Your task to perform on an android device: change the clock display to analog Image 0: 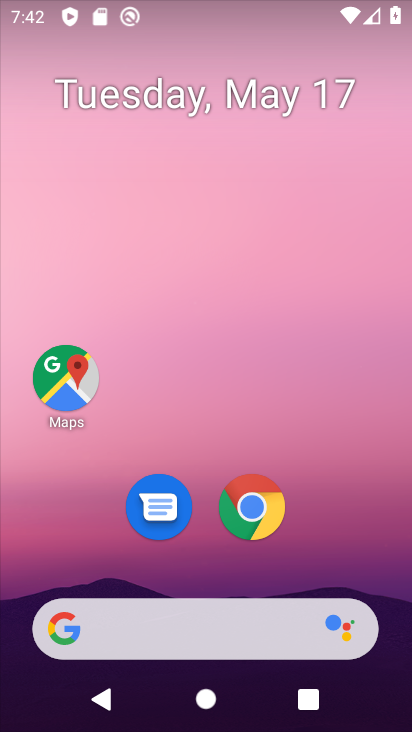
Step 0: drag from (276, 659) to (282, 21)
Your task to perform on an android device: change the clock display to analog Image 1: 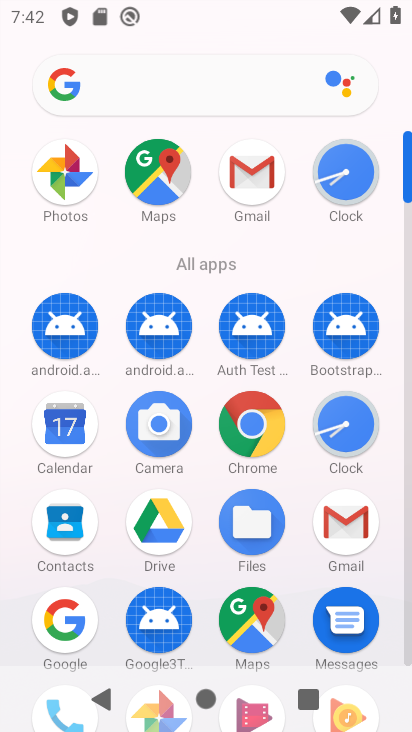
Step 1: click (346, 418)
Your task to perform on an android device: change the clock display to analog Image 2: 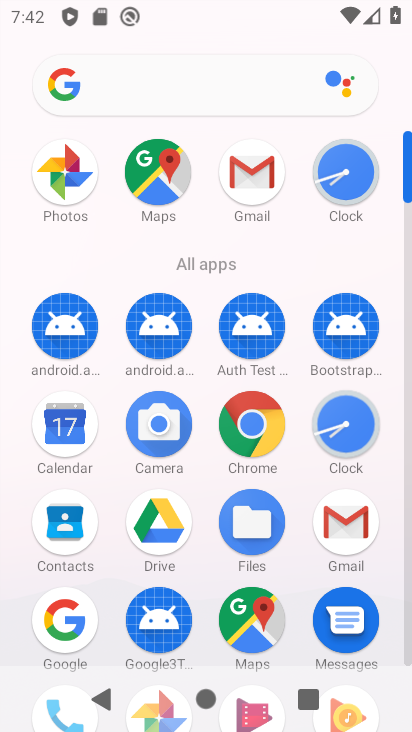
Step 2: click (346, 418)
Your task to perform on an android device: change the clock display to analog Image 3: 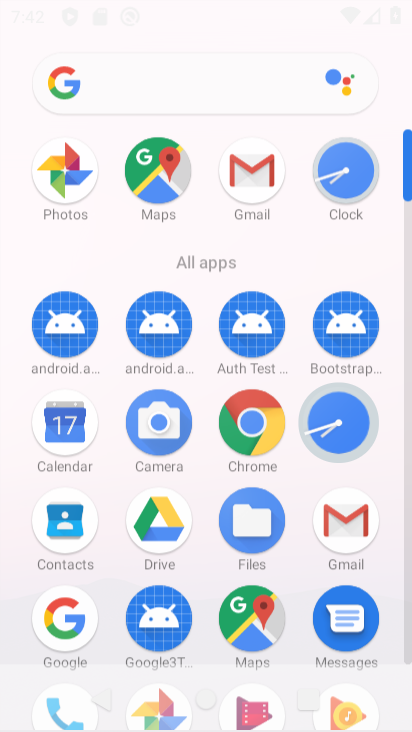
Step 3: click (346, 418)
Your task to perform on an android device: change the clock display to analog Image 4: 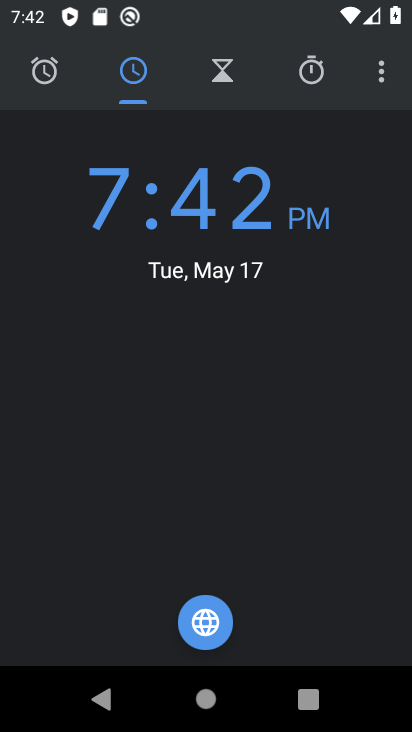
Step 4: click (377, 67)
Your task to perform on an android device: change the clock display to analog Image 5: 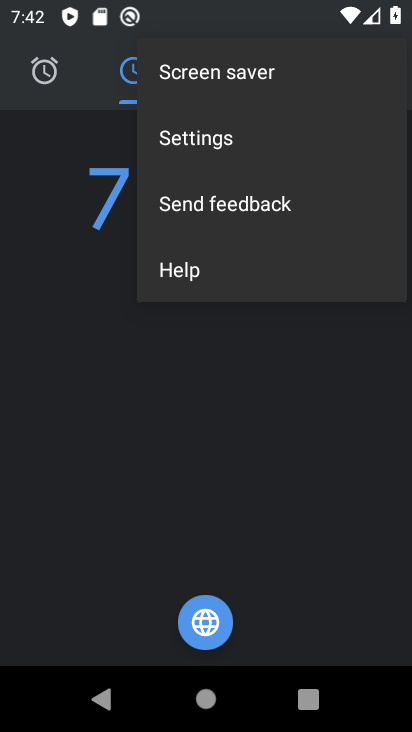
Step 5: click (185, 139)
Your task to perform on an android device: change the clock display to analog Image 6: 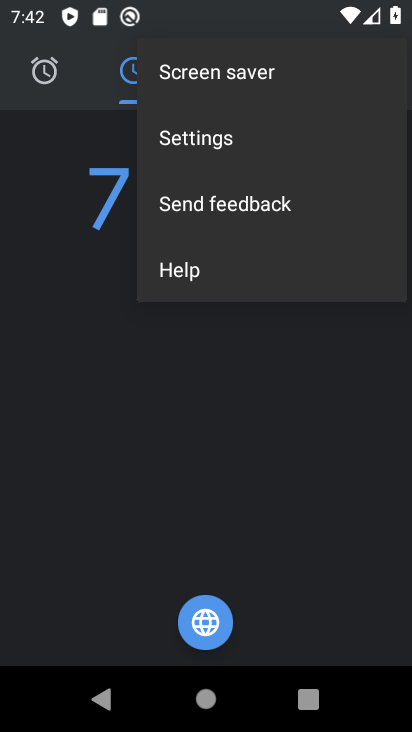
Step 6: click (186, 139)
Your task to perform on an android device: change the clock display to analog Image 7: 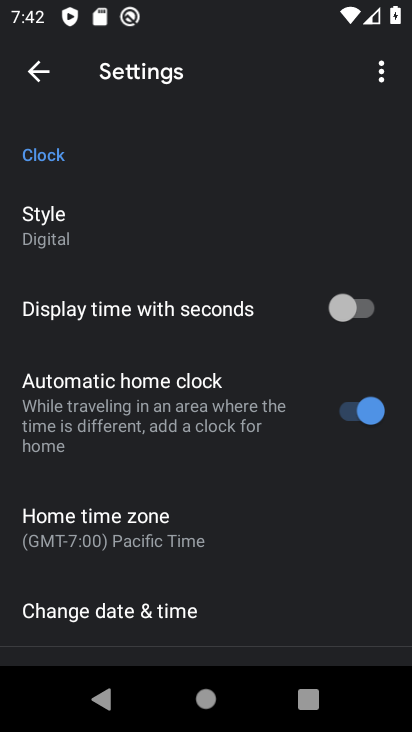
Step 7: click (201, 617)
Your task to perform on an android device: change the clock display to analog Image 8: 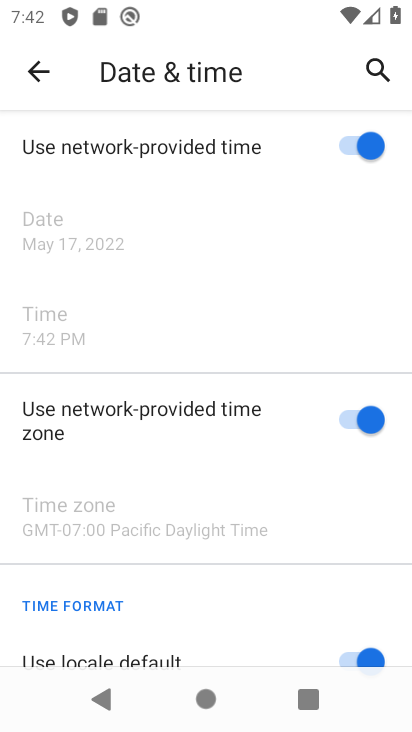
Step 8: click (39, 74)
Your task to perform on an android device: change the clock display to analog Image 9: 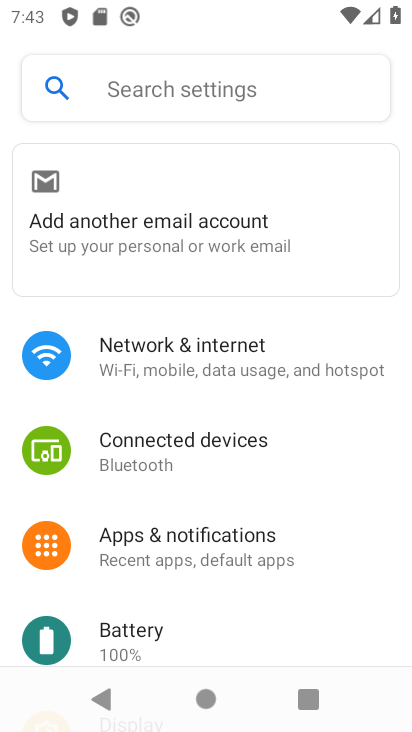
Step 9: press back button
Your task to perform on an android device: change the clock display to analog Image 10: 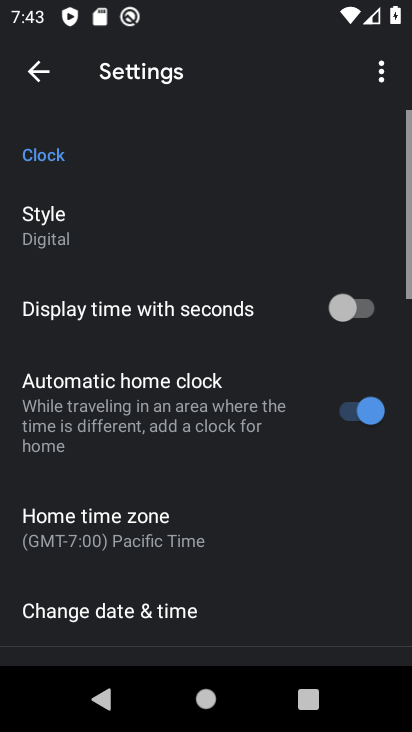
Step 10: click (141, 215)
Your task to perform on an android device: change the clock display to analog Image 11: 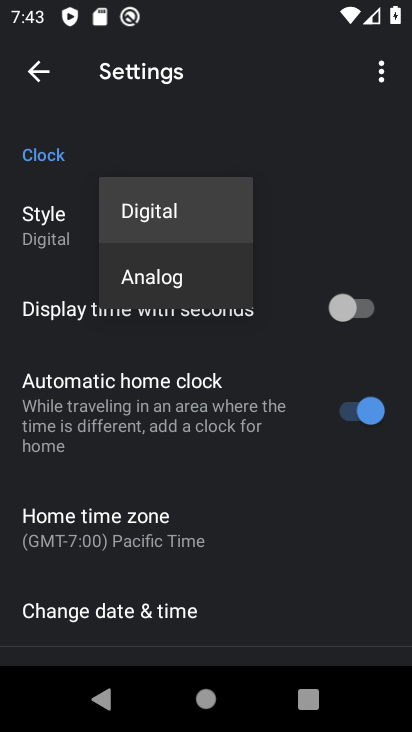
Step 11: click (162, 277)
Your task to perform on an android device: change the clock display to analog Image 12: 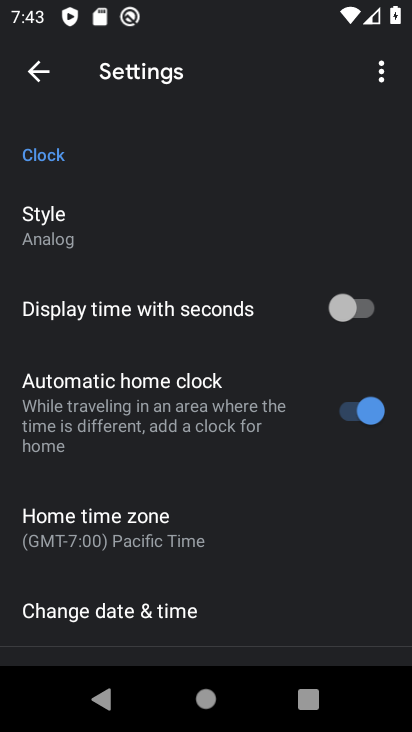
Step 12: task complete